Your task to perform on an android device: Add lenovo thinkpad to the cart on amazon Image 0: 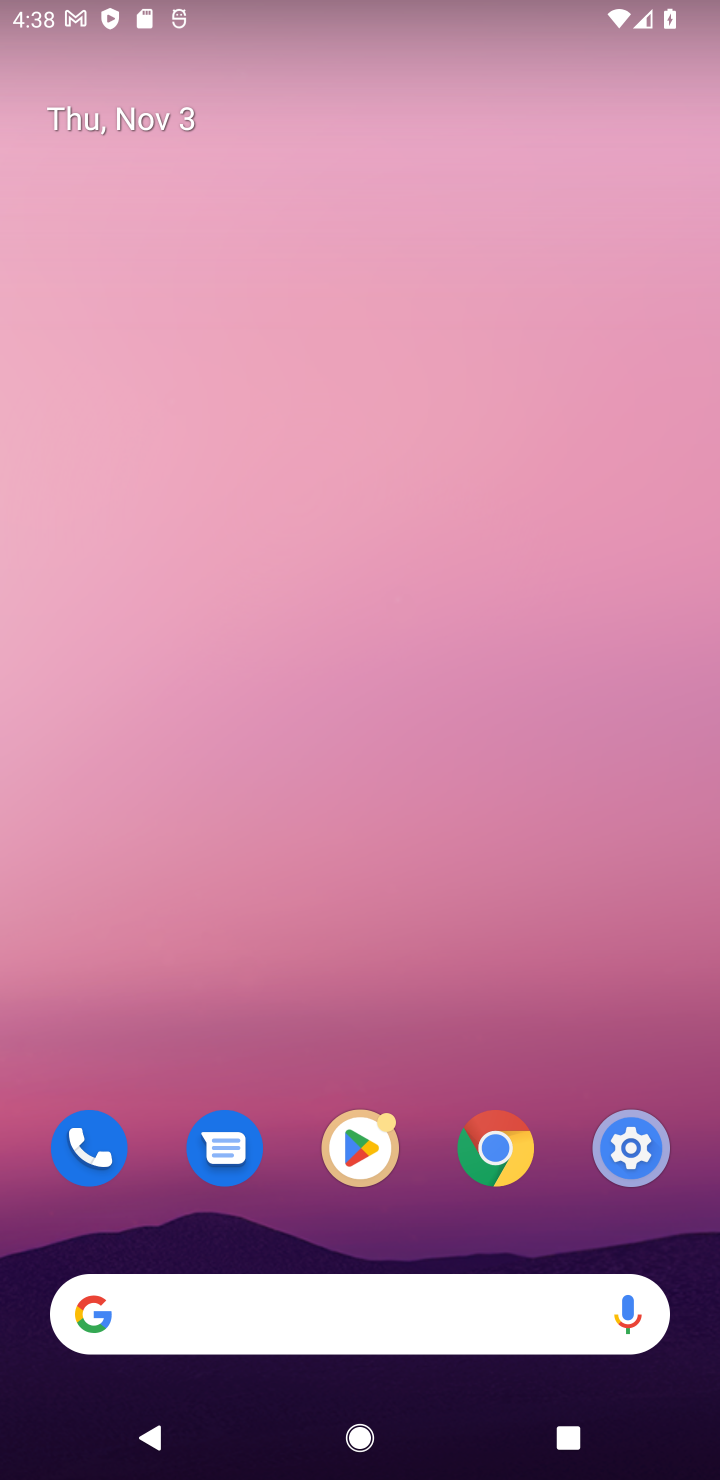
Step 0: click (340, 1332)
Your task to perform on an android device: Add lenovo thinkpad to the cart on amazon Image 1: 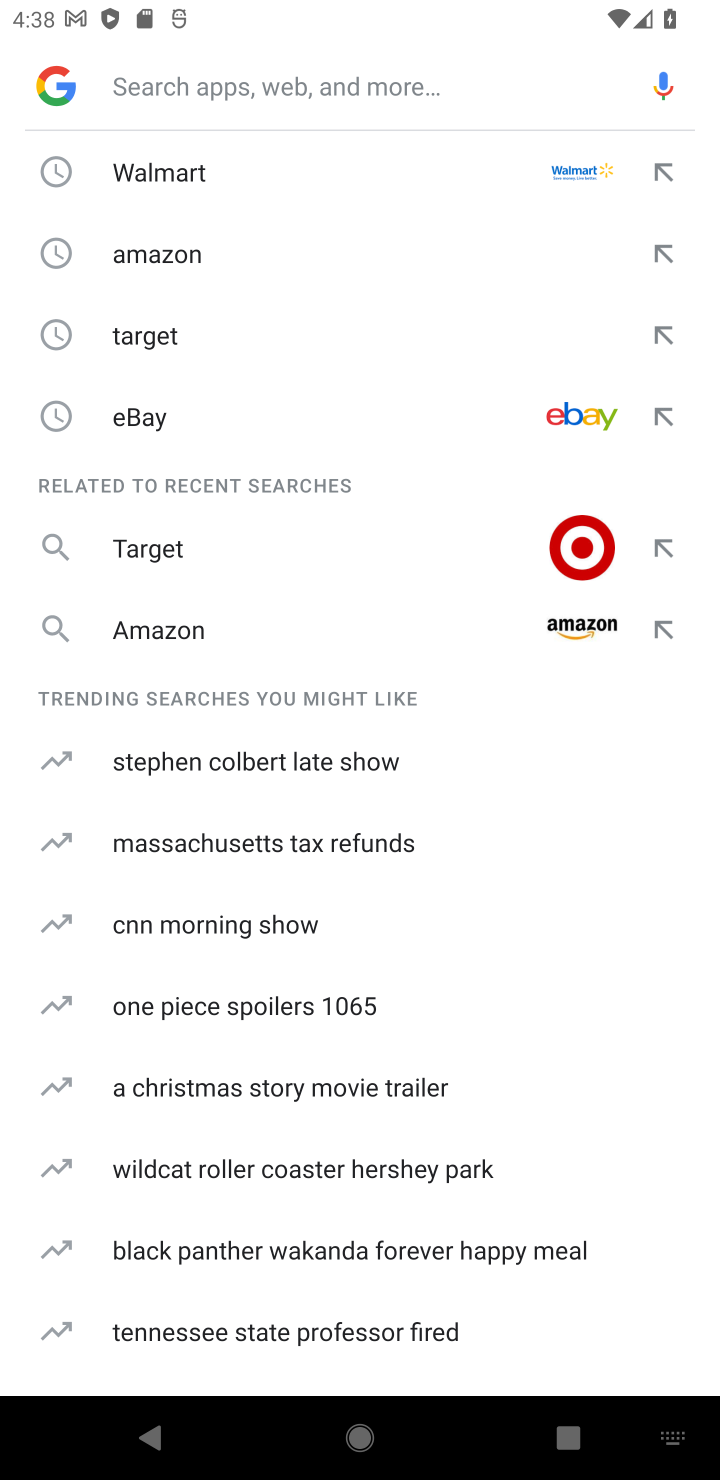
Step 1: type "amazon"
Your task to perform on an android device: Add lenovo thinkpad to the cart on amazon Image 2: 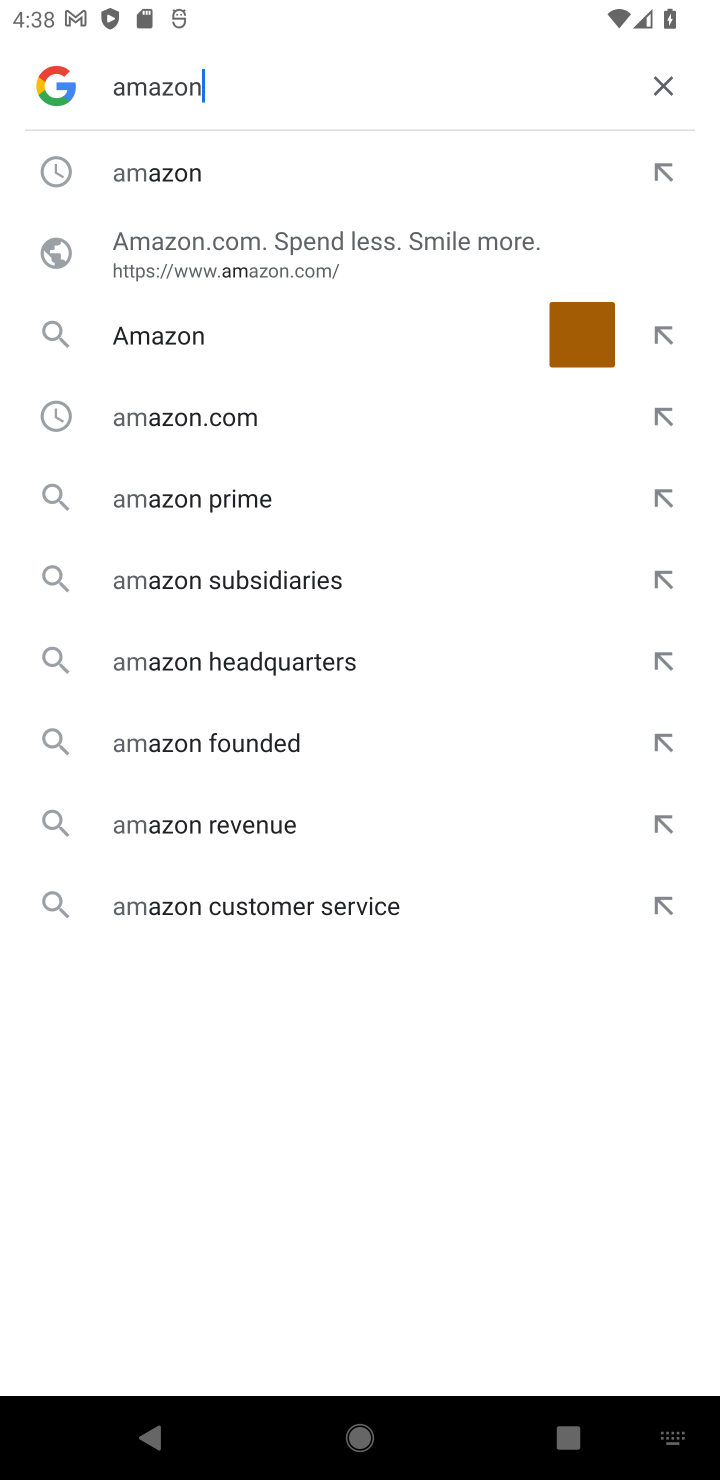
Step 2: type ""
Your task to perform on an android device: Add lenovo thinkpad to the cart on amazon Image 3: 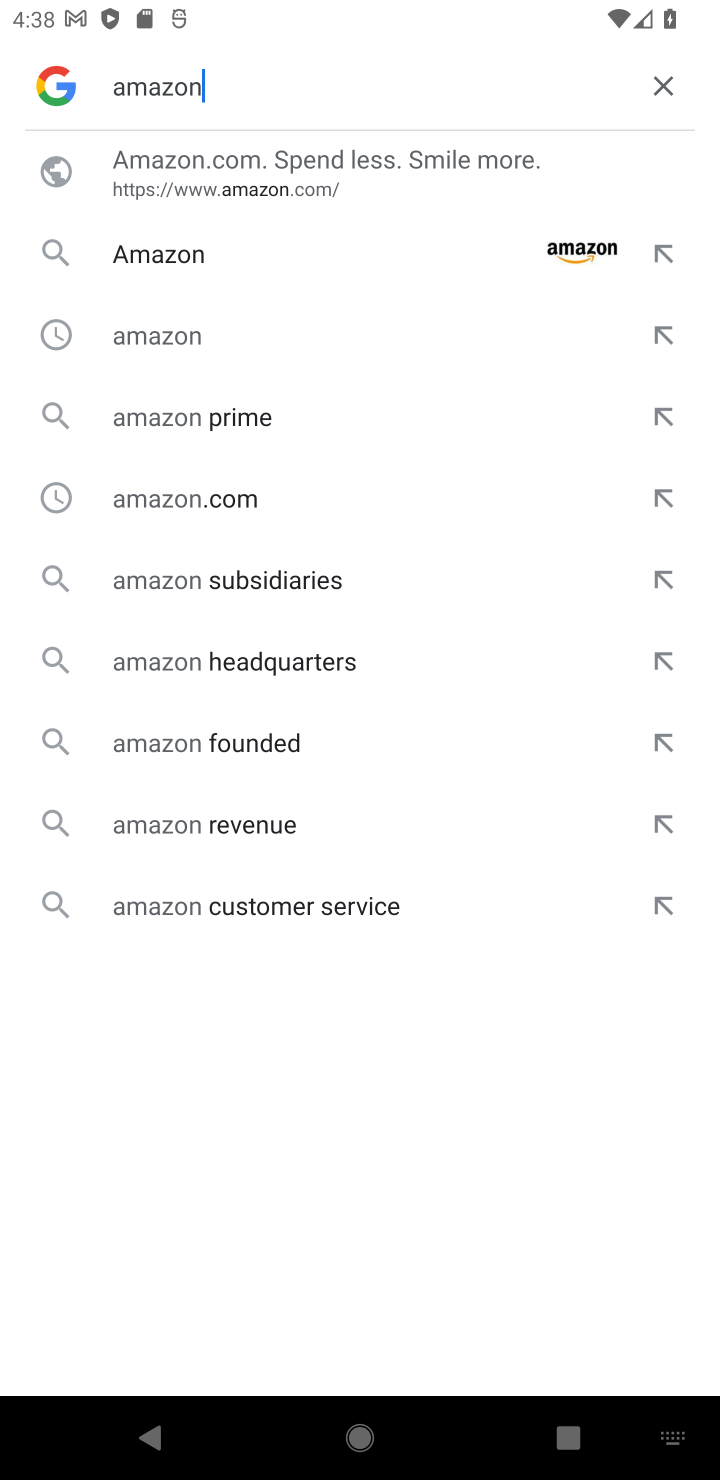
Step 3: click (193, 266)
Your task to perform on an android device: Add lenovo thinkpad to the cart on amazon Image 4: 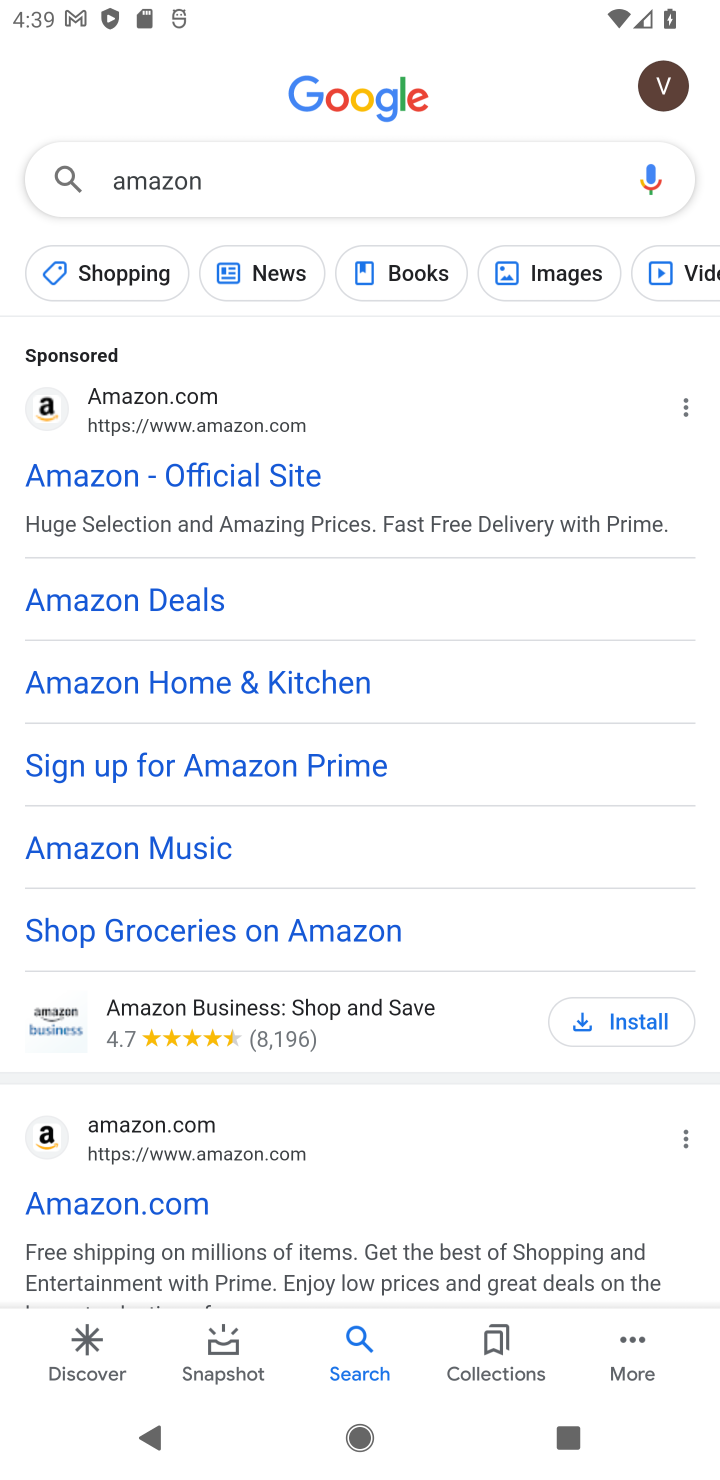
Step 4: click (146, 450)
Your task to perform on an android device: Add lenovo thinkpad to the cart on amazon Image 5: 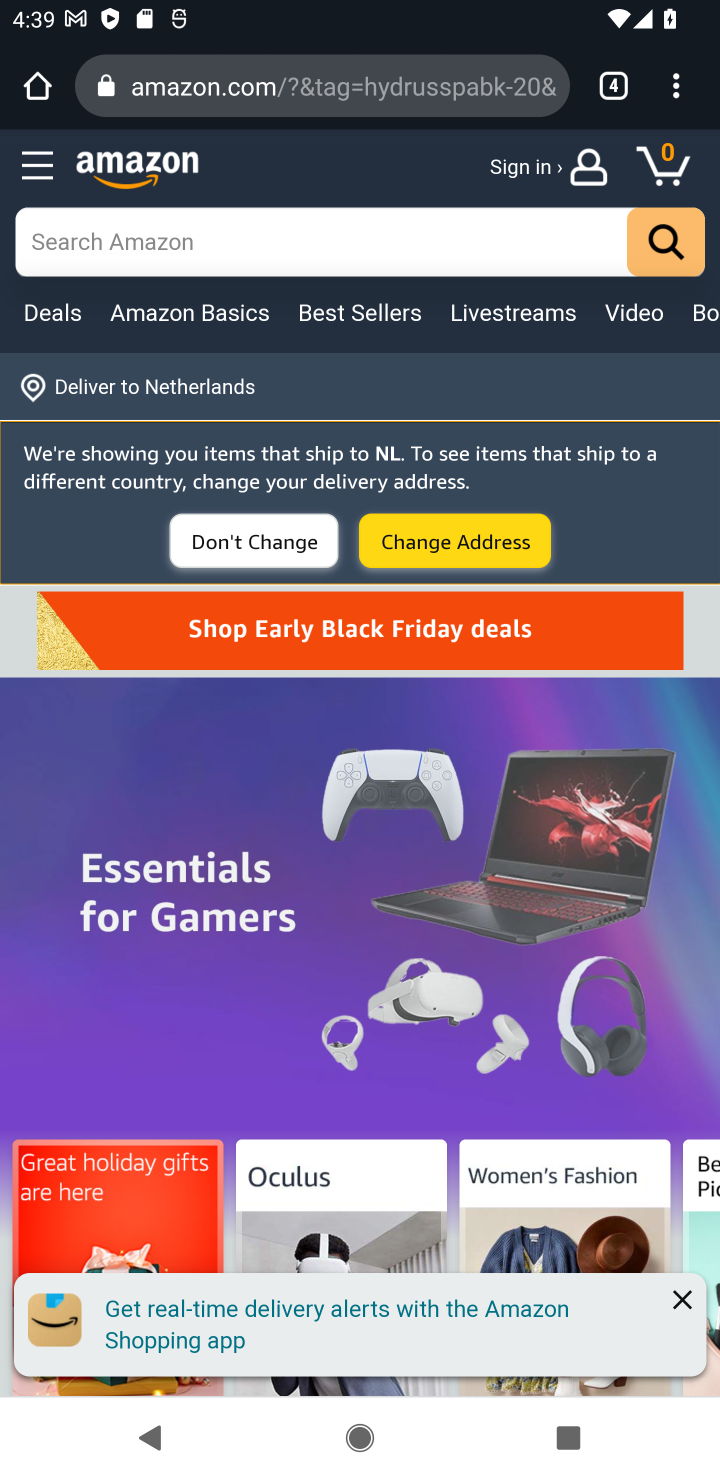
Step 5: click (415, 250)
Your task to perform on an android device: Add lenovo thinkpad to the cart on amazon Image 6: 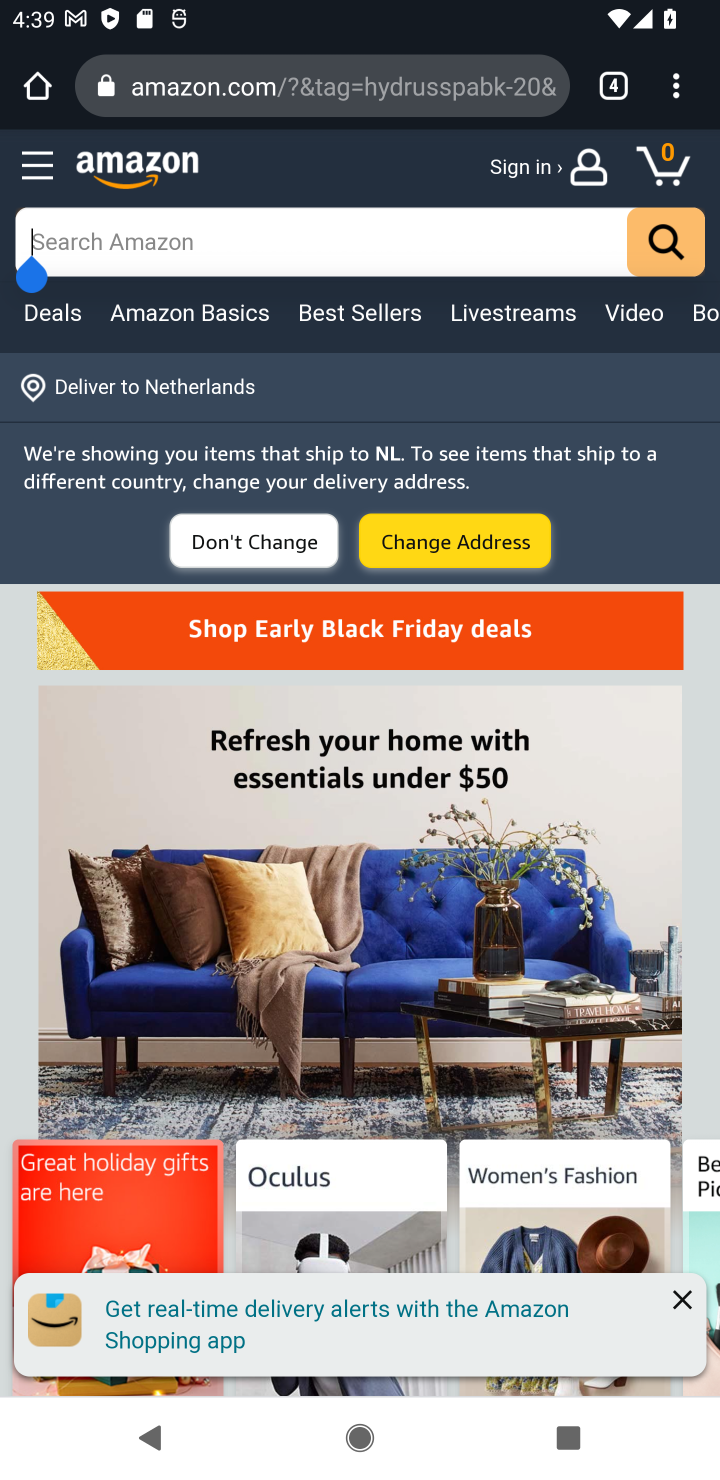
Step 6: click (667, 1320)
Your task to perform on an android device: Add lenovo thinkpad to the cart on amazon Image 7: 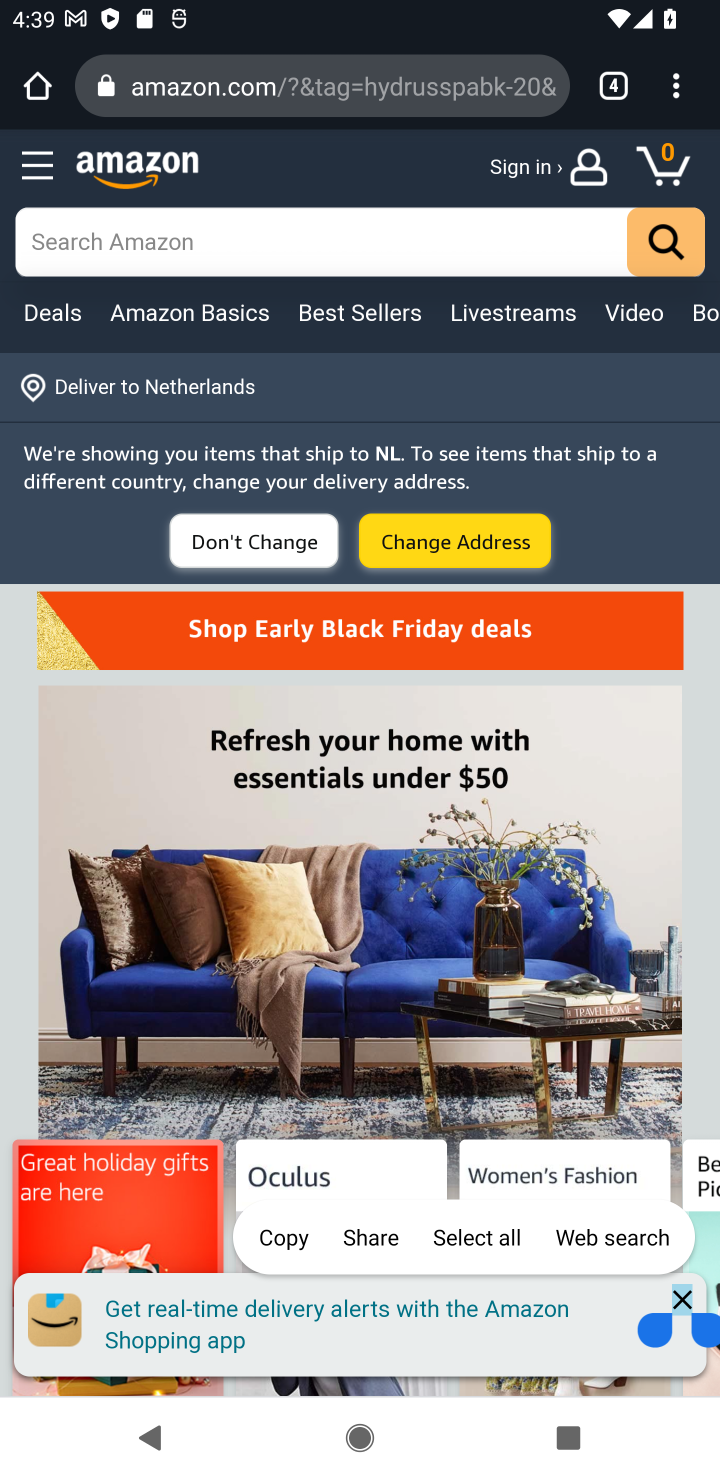
Step 7: type "lenovo thinkpad"
Your task to perform on an android device: Add lenovo thinkpad to the cart on amazon Image 8: 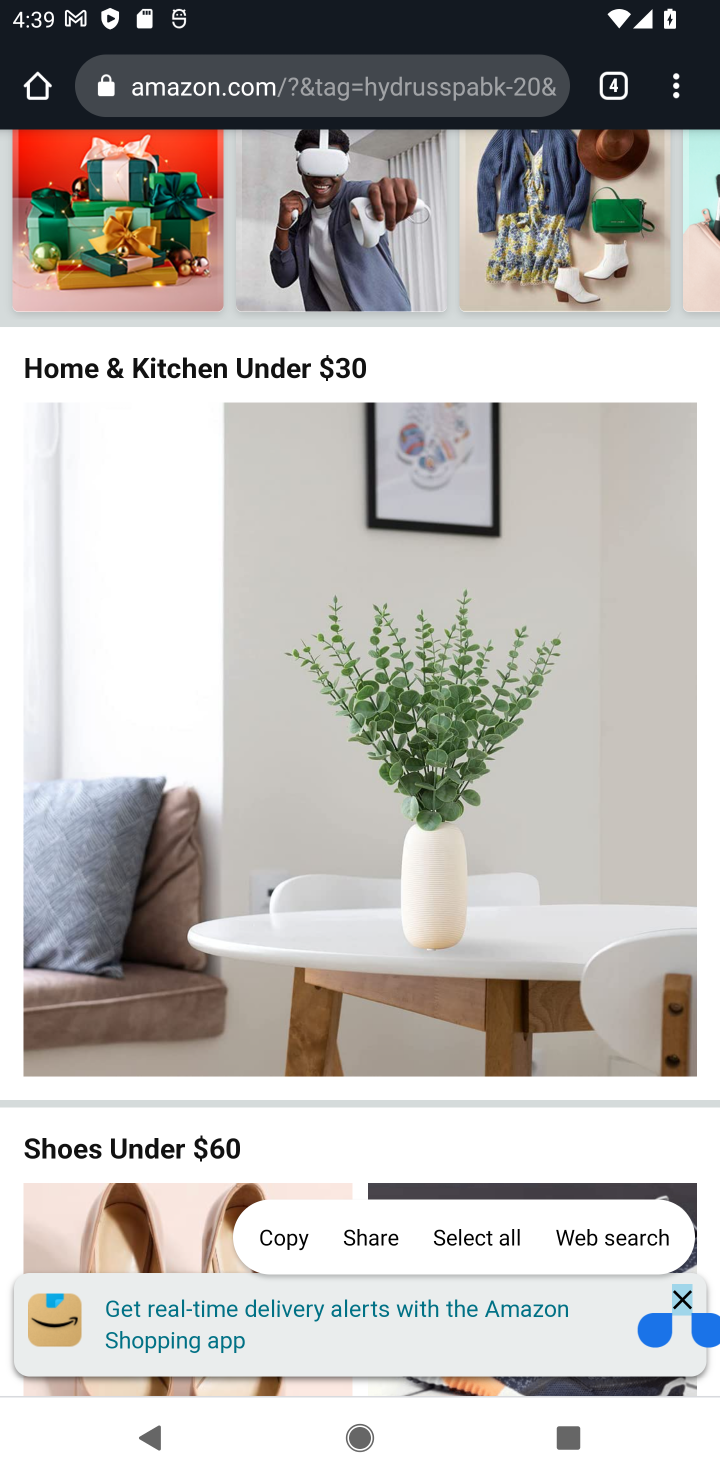
Step 8: drag from (493, 583) to (518, 1014)
Your task to perform on an android device: Add lenovo thinkpad to the cart on amazon Image 9: 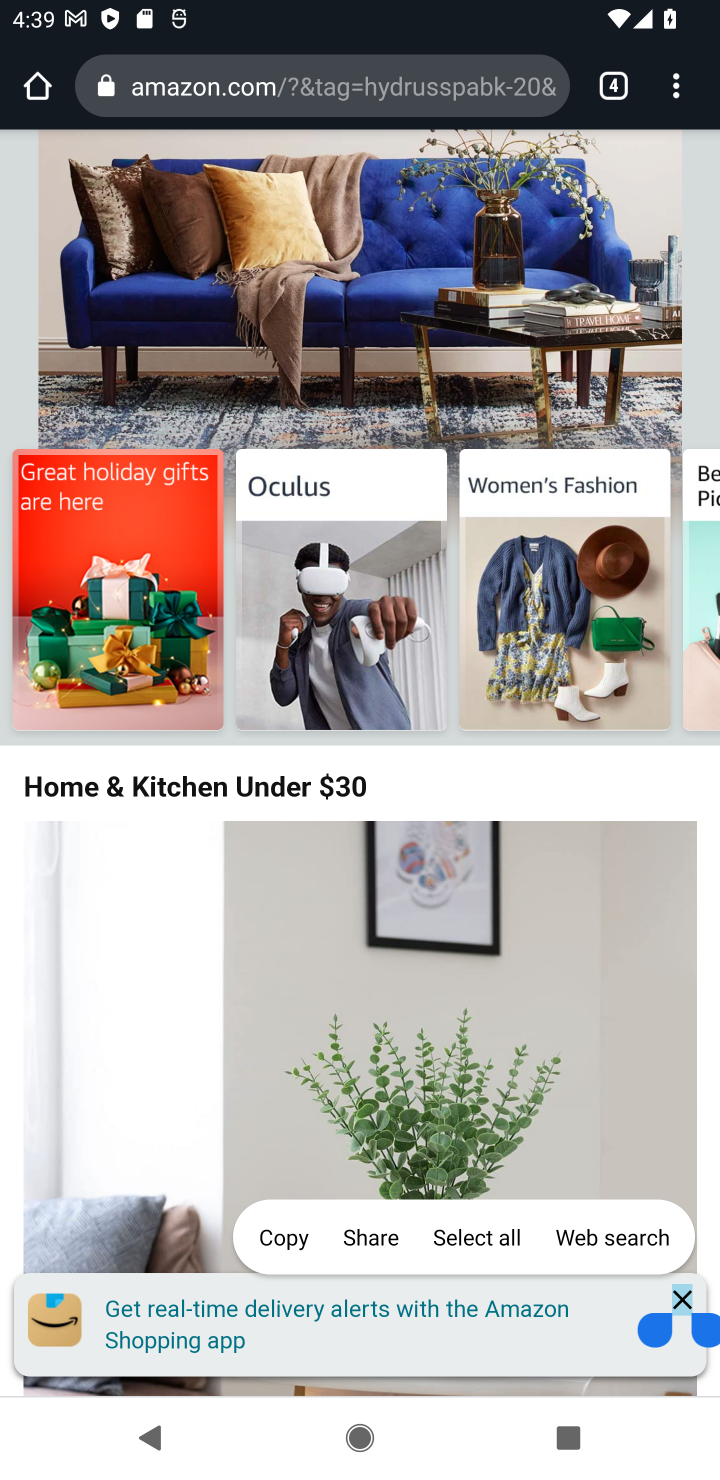
Step 9: drag from (357, 726) to (377, 1170)
Your task to perform on an android device: Add lenovo thinkpad to the cart on amazon Image 10: 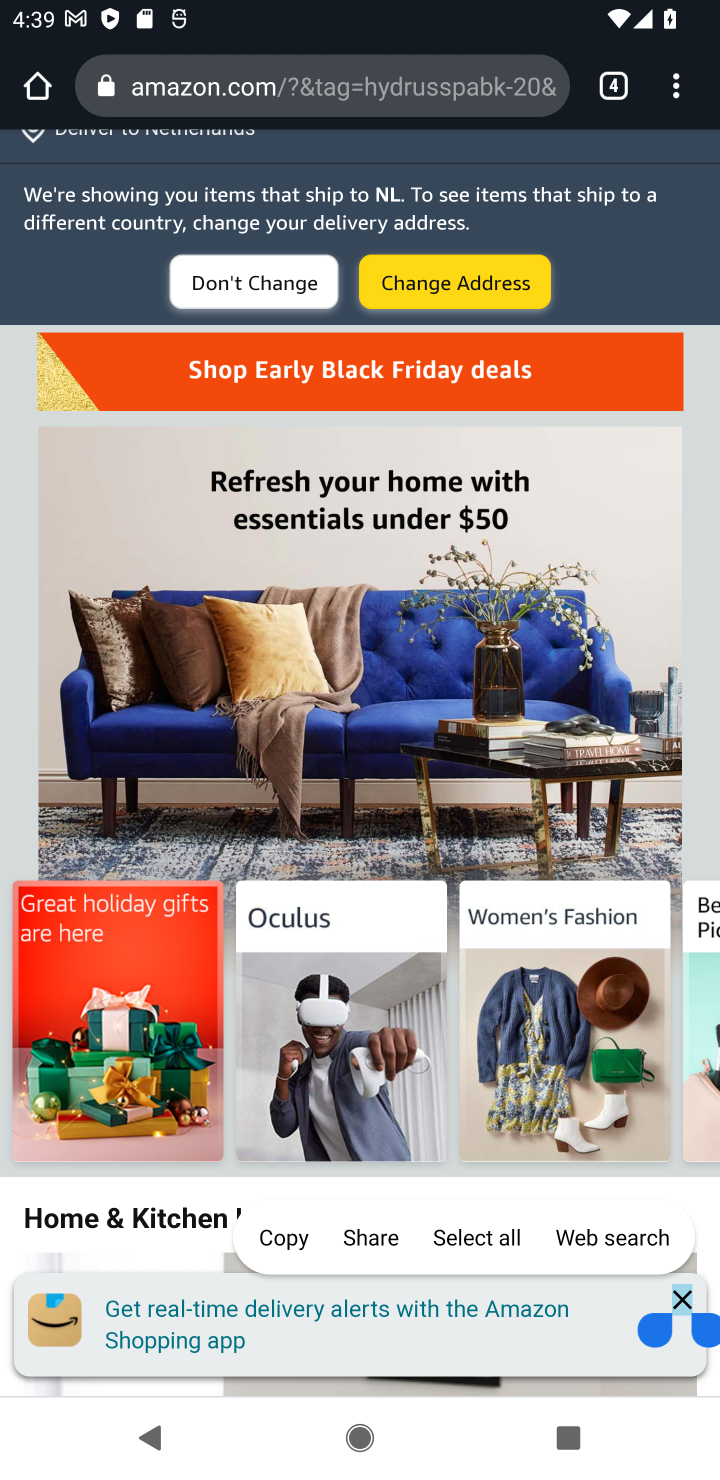
Step 10: drag from (376, 547) to (415, 943)
Your task to perform on an android device: Add lenovo thinkpad to the cart on amazon Image 11: 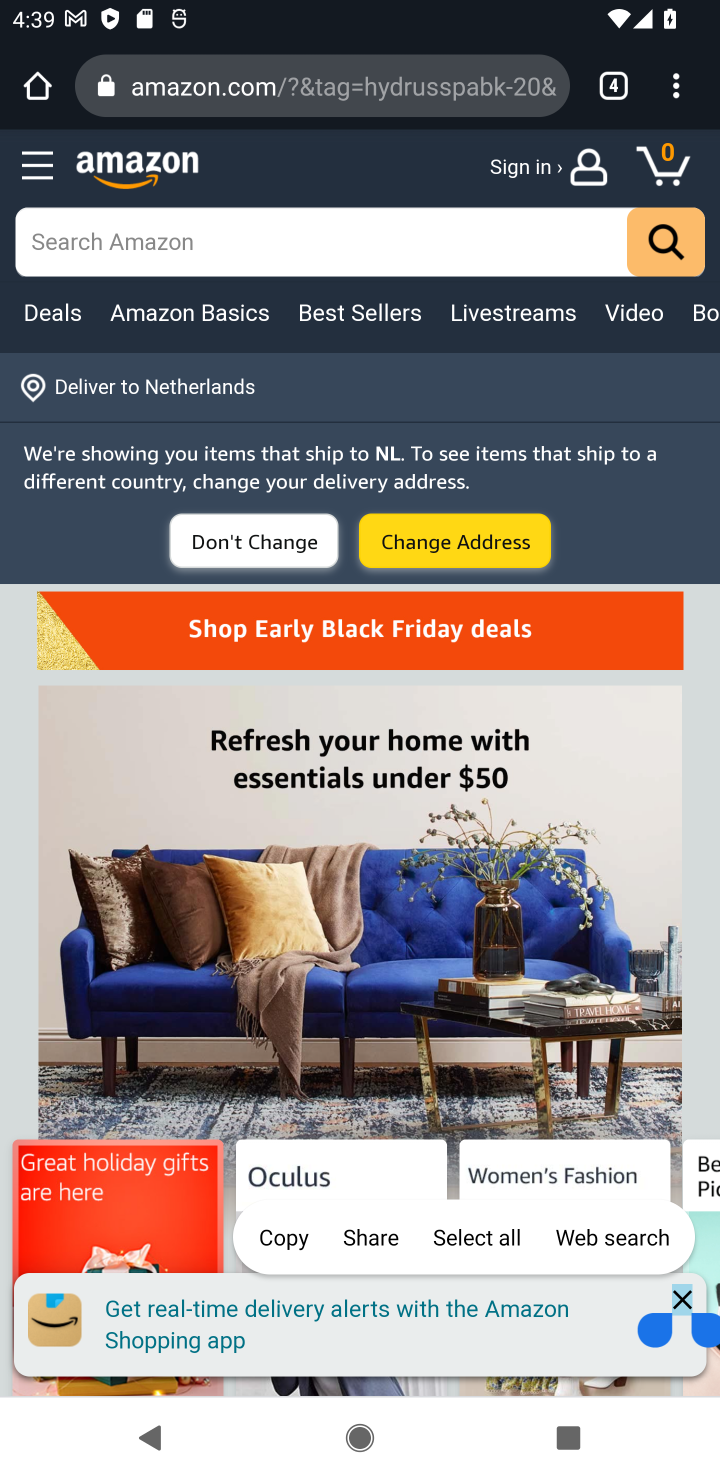
Step 11: click (336, 238)
Your task to perform on an android device: Add lenovo thinkpad to the cart on amazon Image 12: 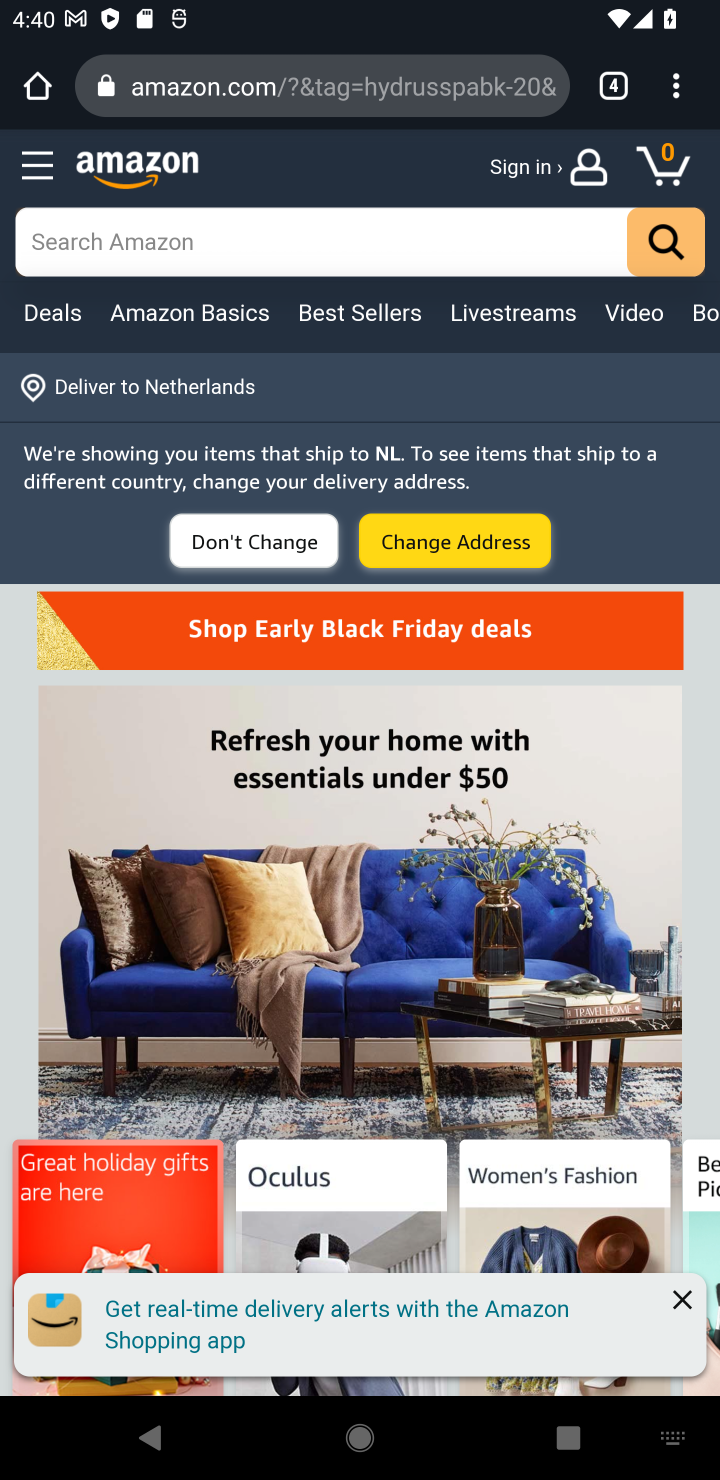
Step 12: type "lenovo thinkpad"
Your task to perform on an android device: Add lenovo thinkpad to the cart on amazon Image 13: 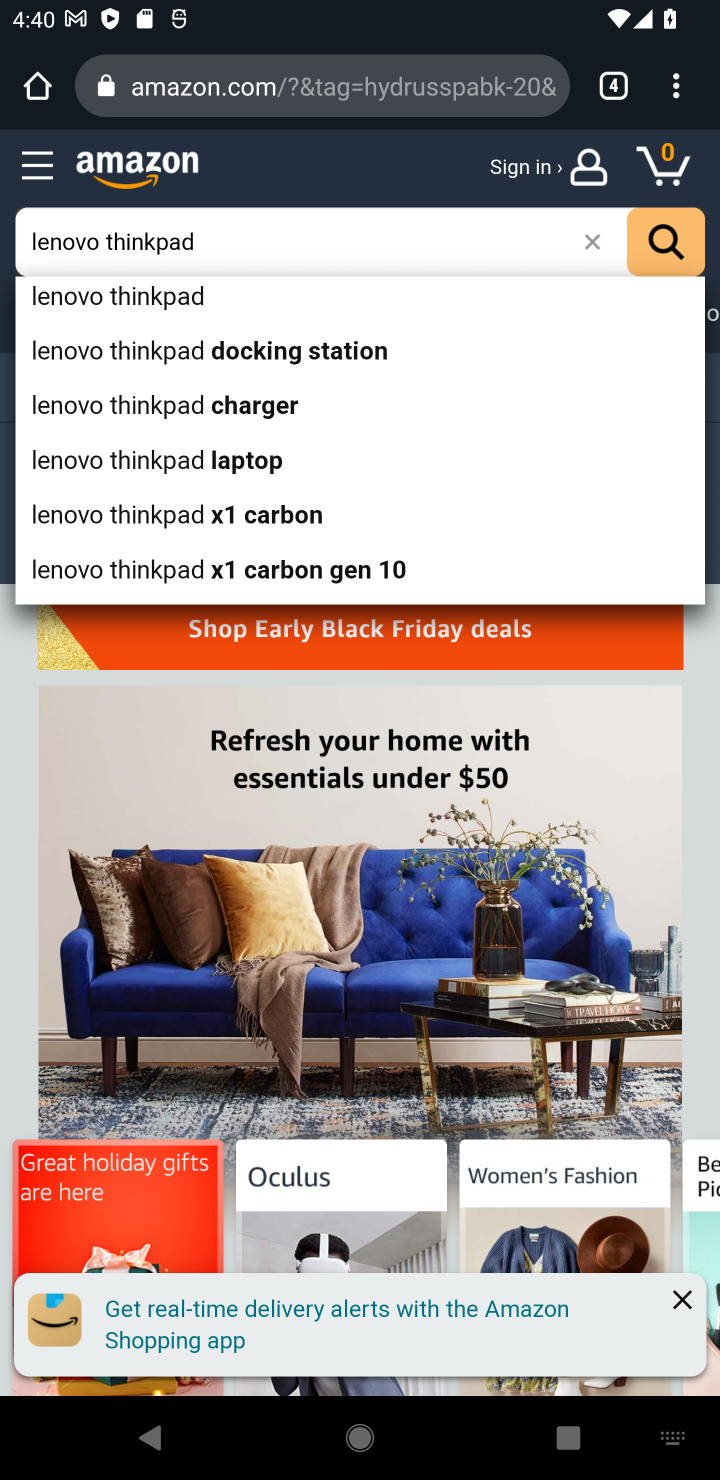
Step 13: click (143, 296)
Your task to perform on an android device: Add lenovo thinkpad to the cart on amazon Image 14: 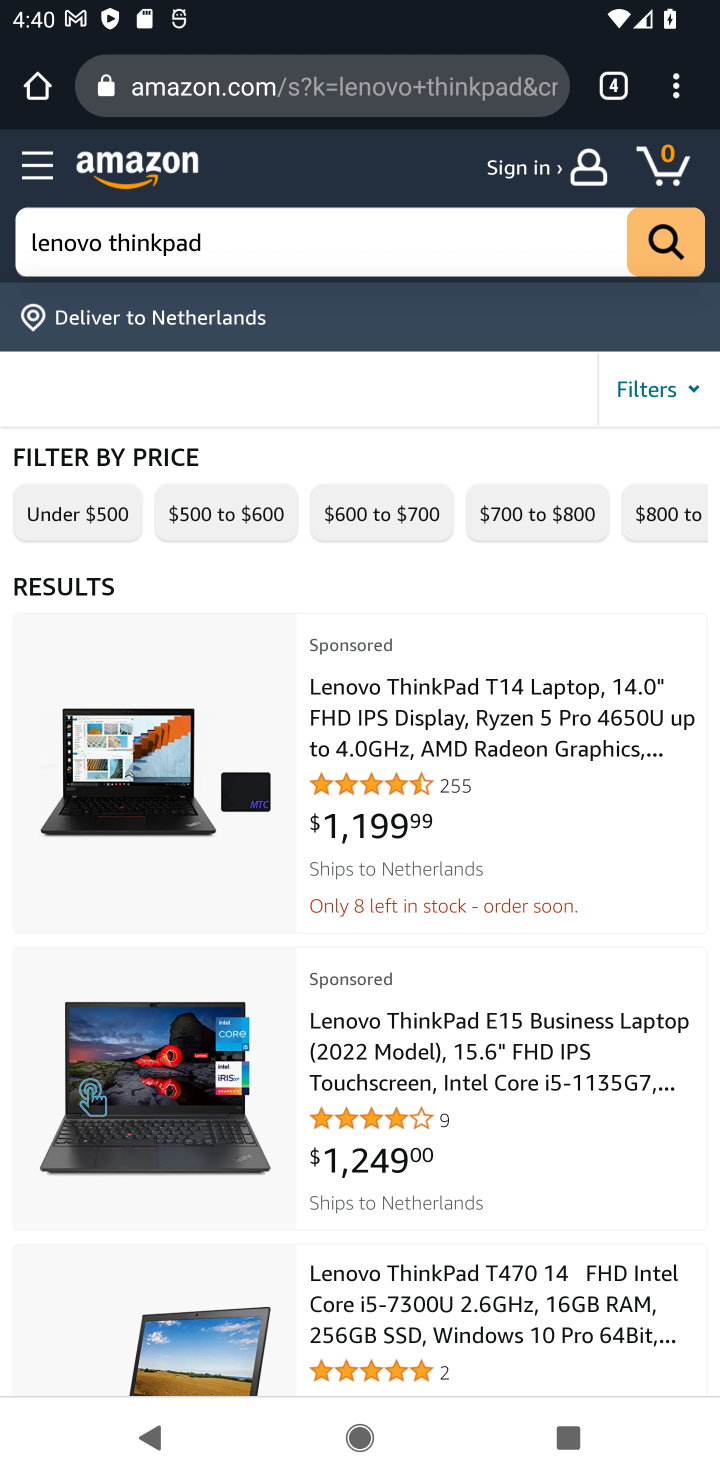
Step 14: click (460, 736)
Your task to perform on an android device: Add lenovo thinkpad to the cart on amazon Image 15: 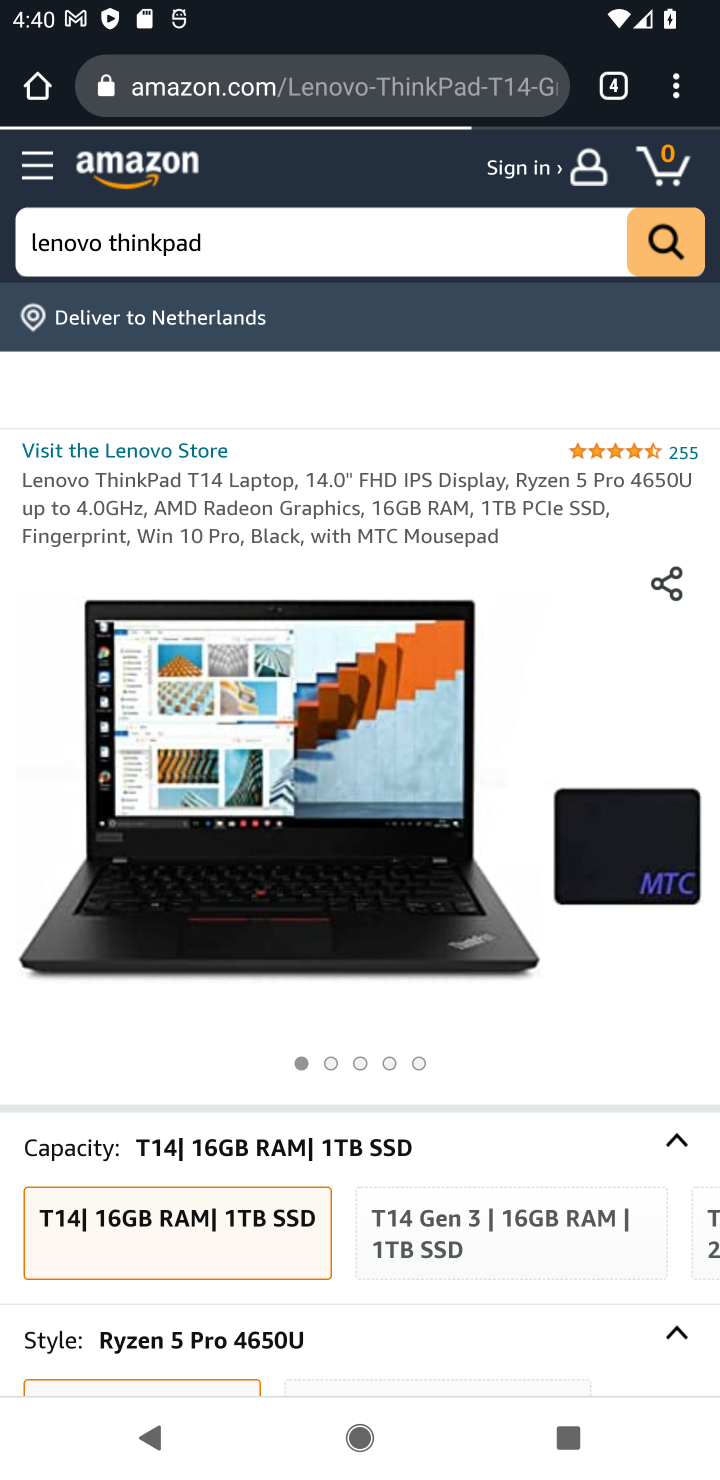
Step 15: drag from (387, 1152) to (393, 499)
Your task to perform on an android device: Add lenovo thinkpad to the cart on amazon Image 16: 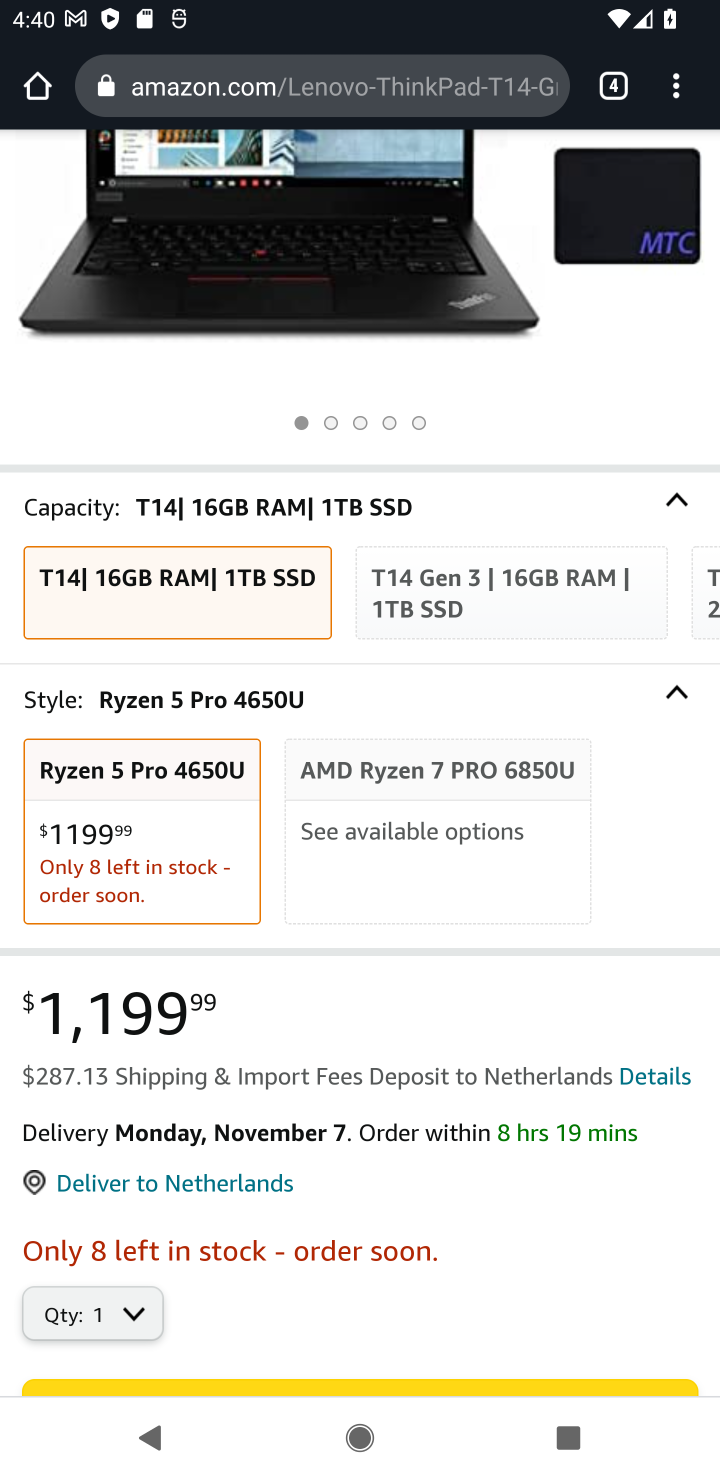
Step 16: drag from (433, 1014) to (383, 441)
Your task to perform on an android device: Add lenovo thinkpad to the cart on amazon Image 17: 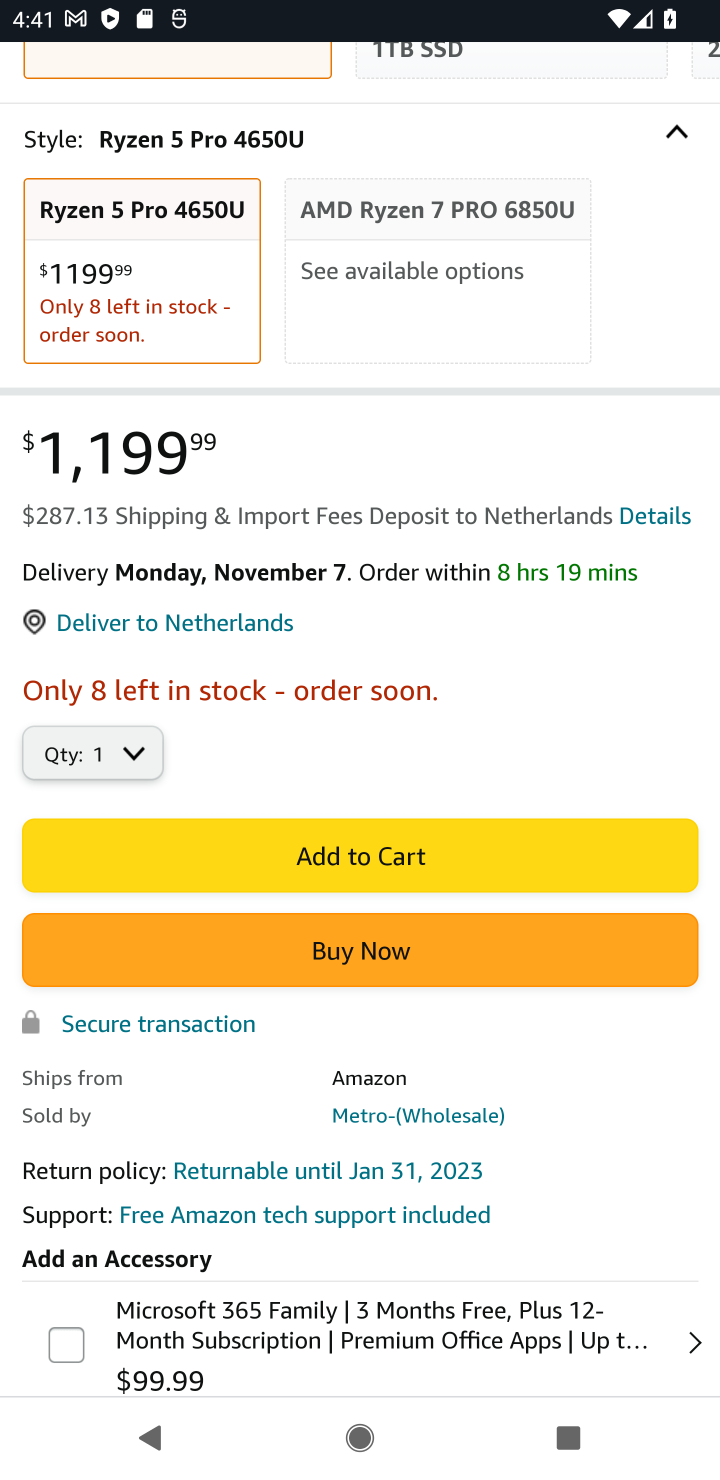
Step 17: click (374, 841)
Your task to perform on an android device: Add lenovo thinkpad to the cart on amazon Image 18: 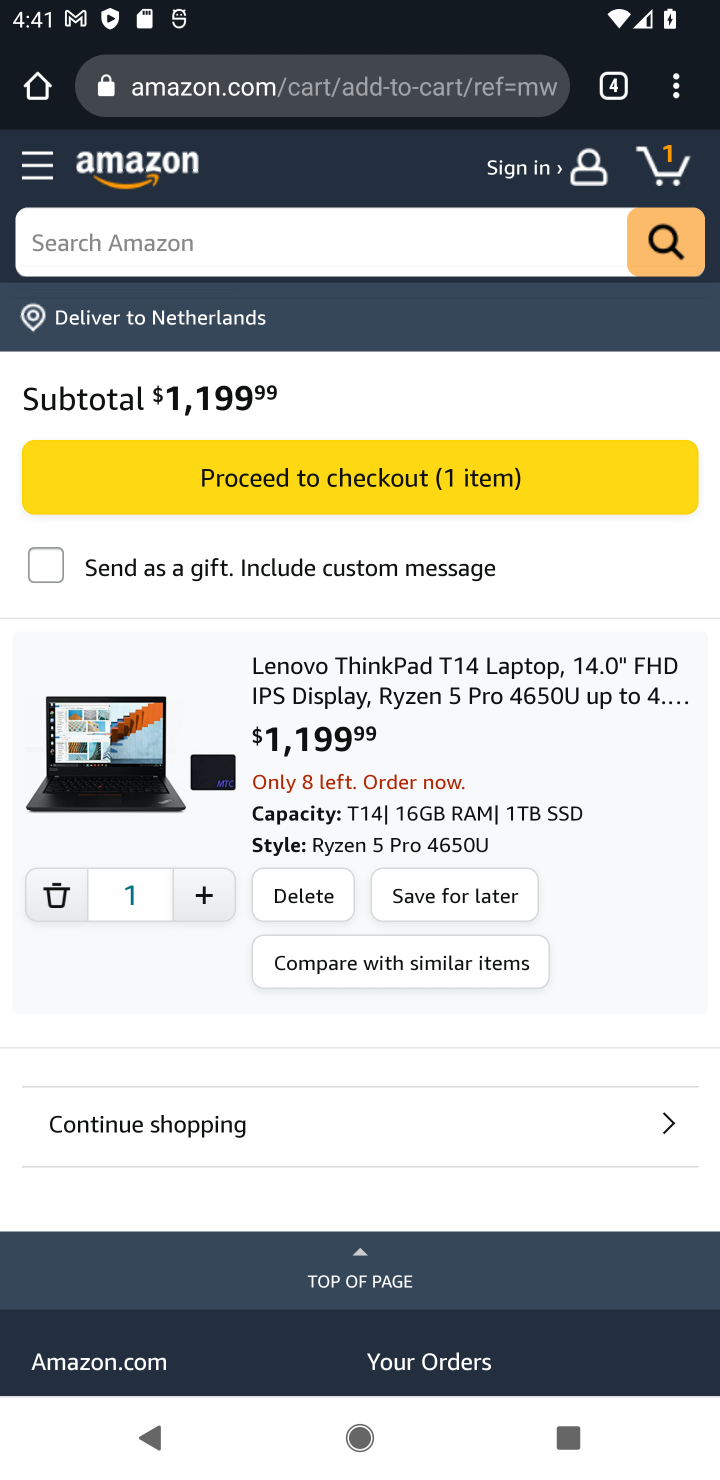
Step 18: task complete